Your task to perform on an android device: delete location history Image 0: 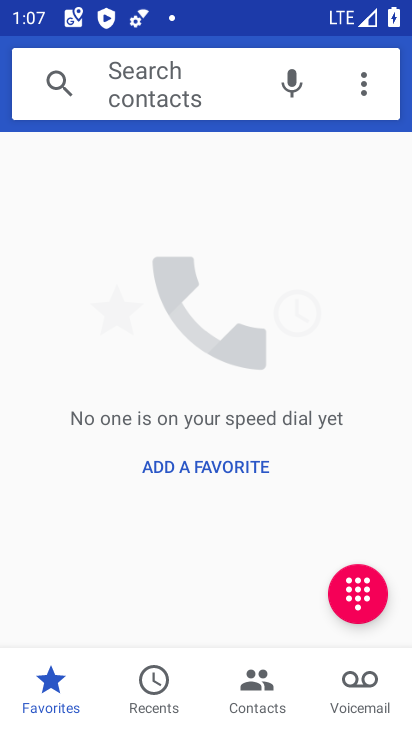
Step 0: press home button
Your task to perform on an android device: delete location history Image 1: 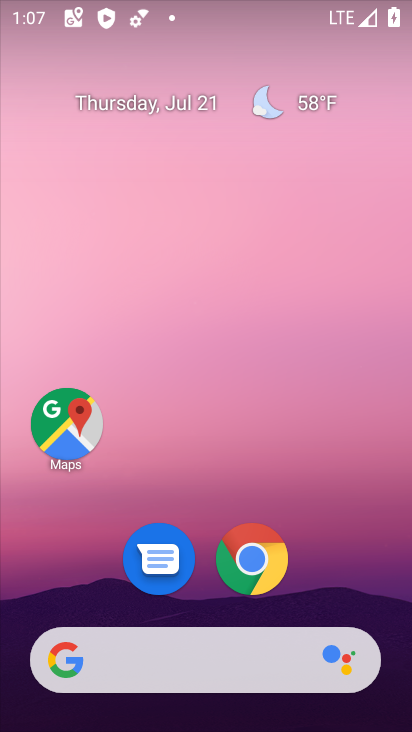
Step 1: drag from (323, 552) to (337, 200)
Your task to perform on an android device: delete location history Image 2: 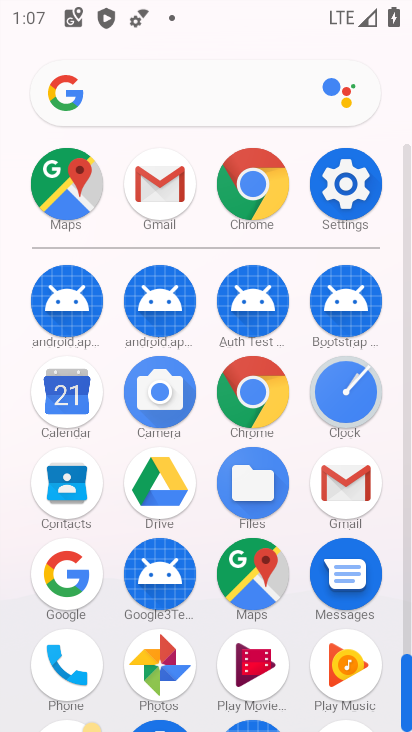
Step 2: click (268, 572)
Your task to perform on an android device: delete location history Image 3: 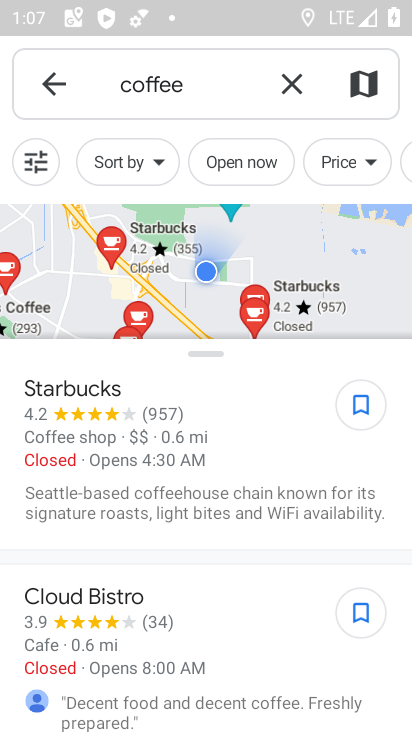
Step 3: press back button
Your task to perform on an android device: delete location history Image 4: 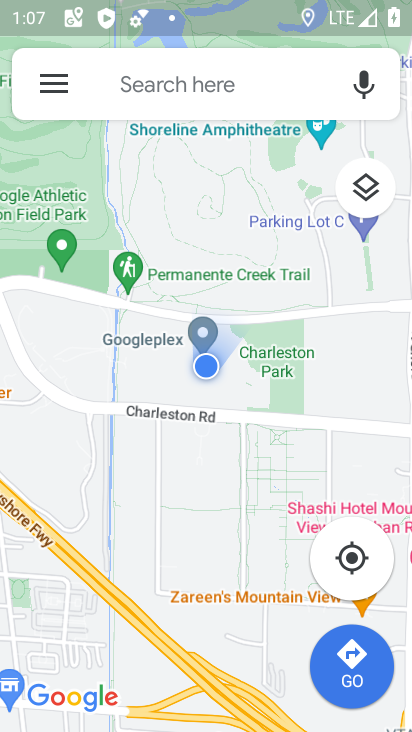
Step 4: click (58, 78)
Your task to perform on an android device: delete location history Image 5: 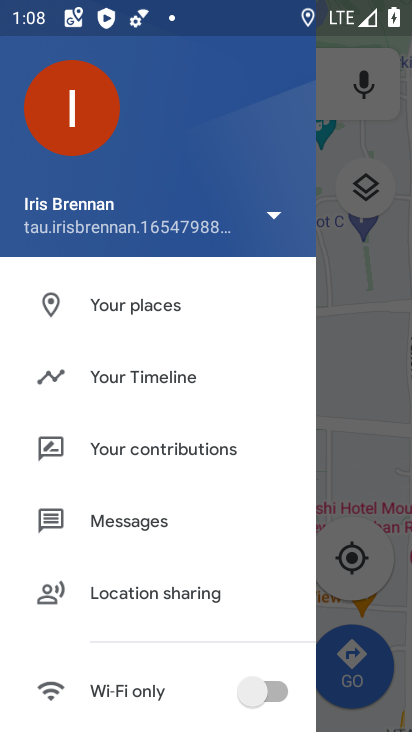
Step 5: click (176, 370)
Your task to perform on an android device: delete location history Image 6: 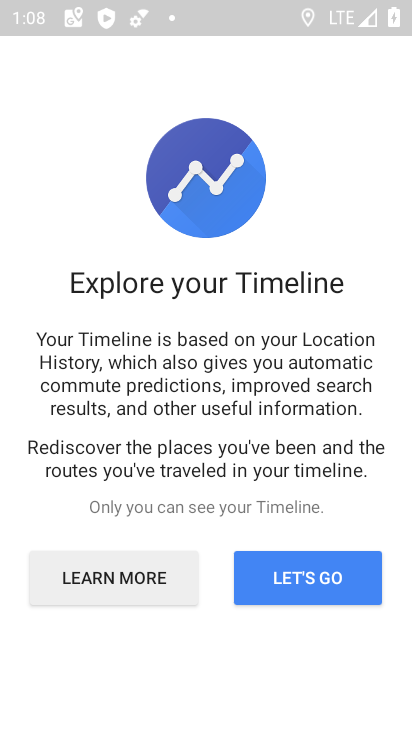
Step 6: drag from (212, 606) to (218, 463)
Your task to perform on an android device: delete location history Image 7: 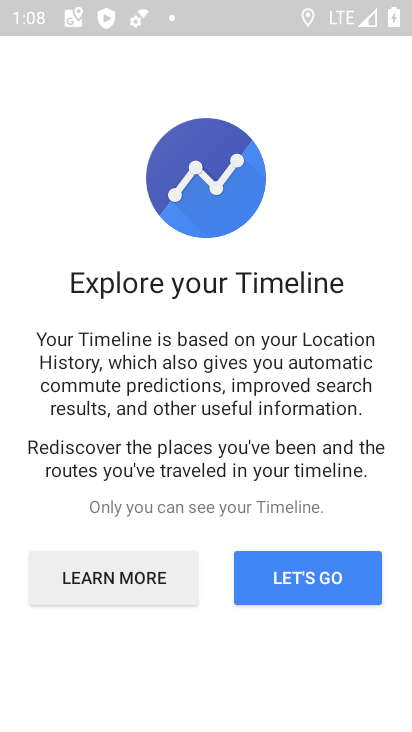
Step 7: click (262, 575)
Your task to perform on an android device: delete location history Image 8: 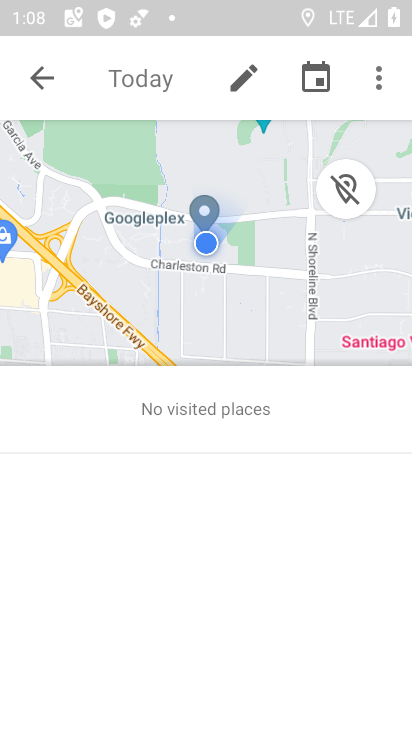
Step 8: click (378, 91)
Your task to perform on an android device: delete location history Image 9: 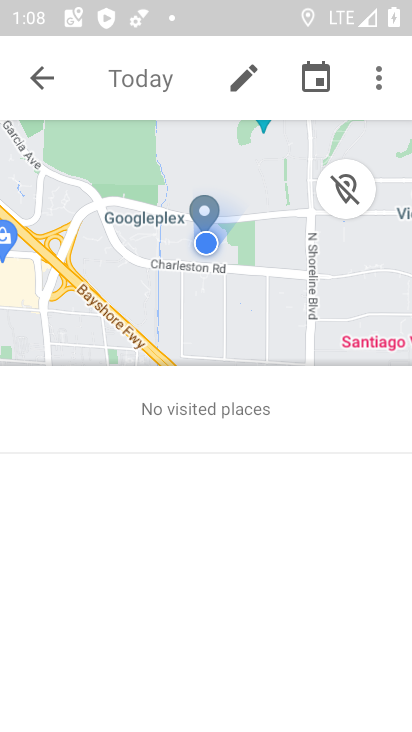
Step 9: click (378, 91)
Your task to perform on an android device: delete location history Image 10: 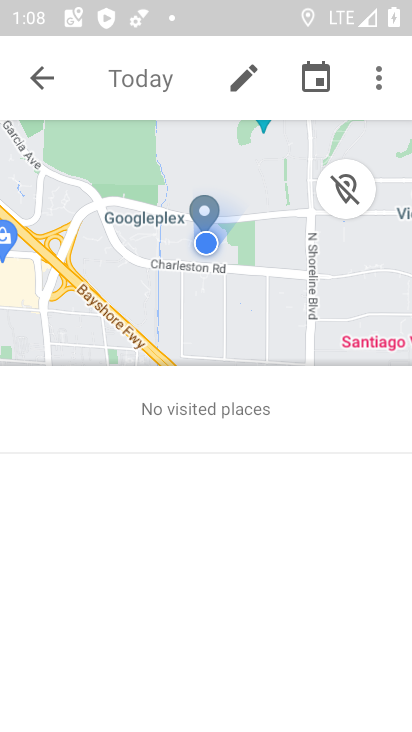
Step 10: click (378, 72)
Your task to perform on an android device: delete location history Image 11: 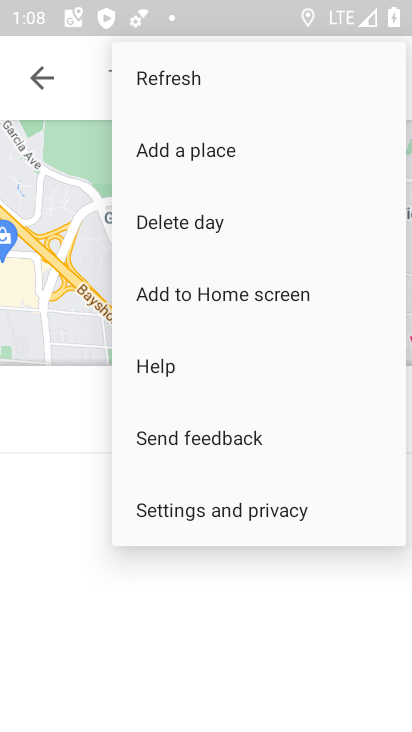
Step 11: click (275, 509)
Your task to perform on an android device: delete location history Image 12: 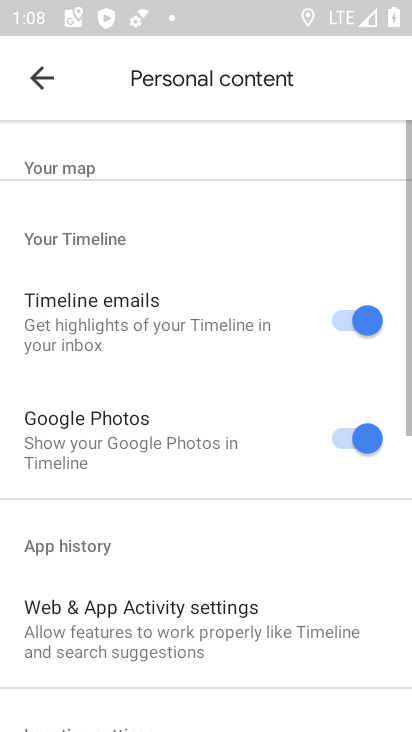
Step 12: drag from (273, 557) to (282, 477)
Your task to perform on an android device: delete location history Image 13: 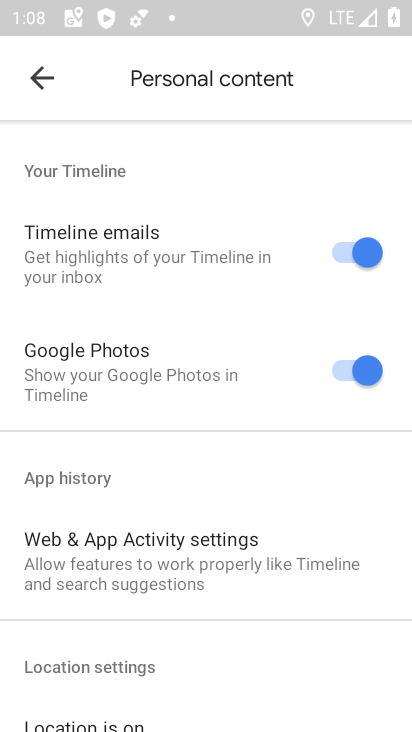
Step 13: drag from (286, 591) to (294, 495)
Your task to perform on an android device: delete location history Image 14: 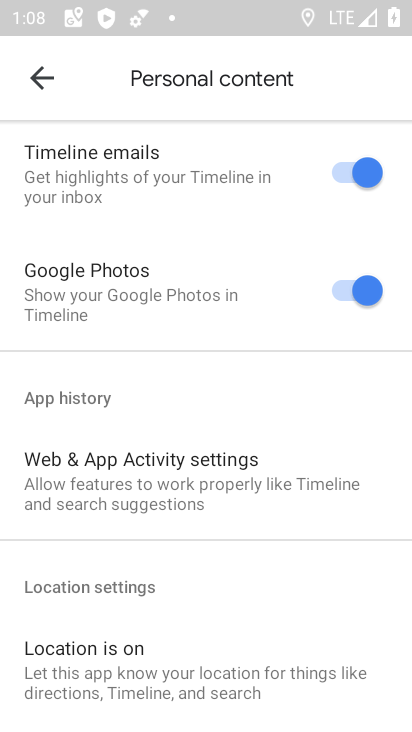
Step 14: drag from (270, 563) to (268, 453)
Your task to perform on an android device: delete location history Image 15: 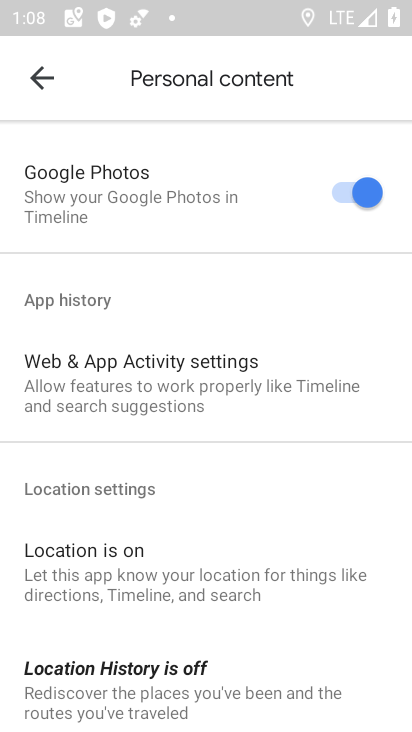
Step 15: drag from (252, 572) to (255, 515)
Your task to perform on an android device: delete location history Image 16: 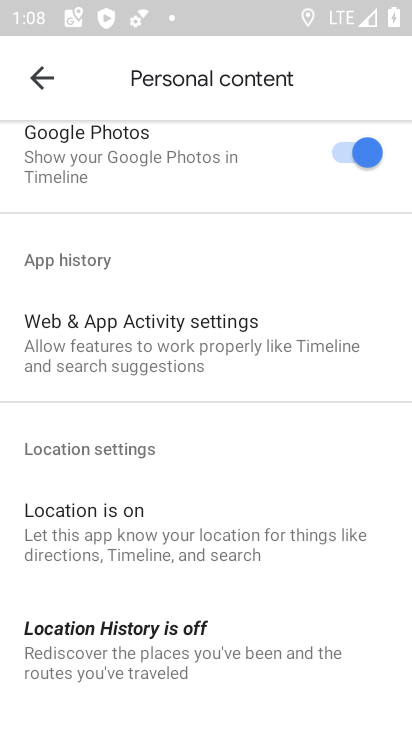
Step 16: drag from (251, 594) to (261, 481)
Your task to perform on an android device: delete location history Image 17: 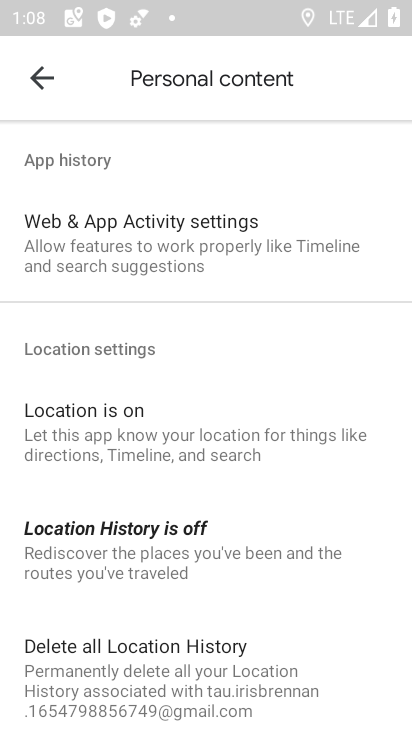
Step 17: drag from (261, 588) to (267, 523)
Your task to perform on an android device: delete location history Image 18: 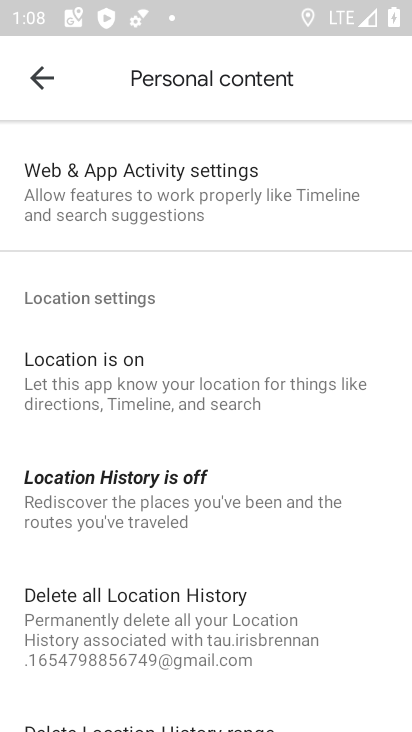
Step 18: click (252, 621)
Your task to perform on an android device: delete location history Image 19: 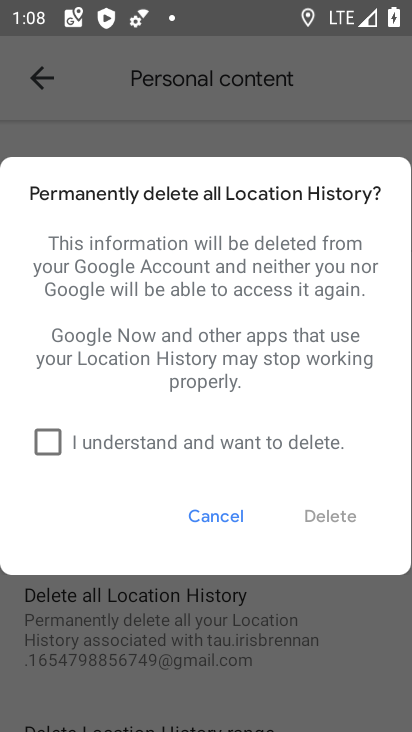
Step 19: click (44, 452)
Your task to perform on an android device: delete location history Image 20: 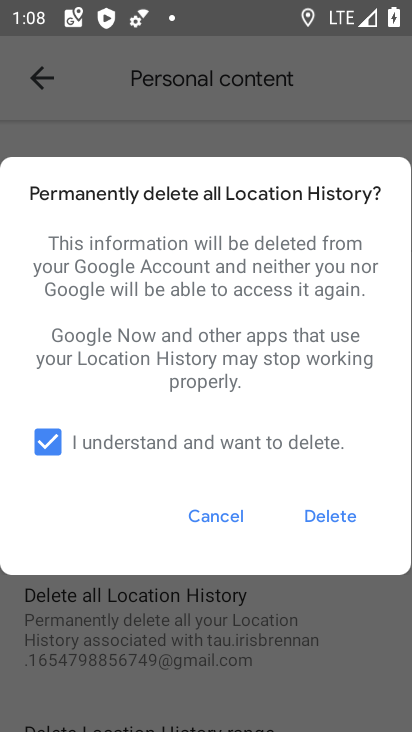
Step 20: click (326, 513)
Your task to perform on an android device: delete location history Image 21: 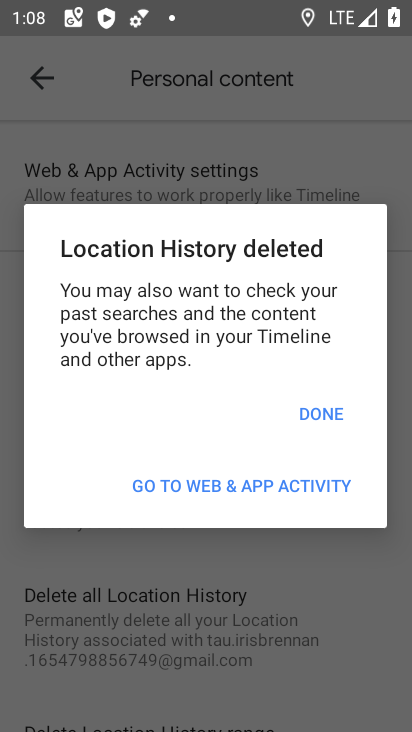
Step 21: click (310, 413)
Your task to perform on an android device: delete location history Image 22: 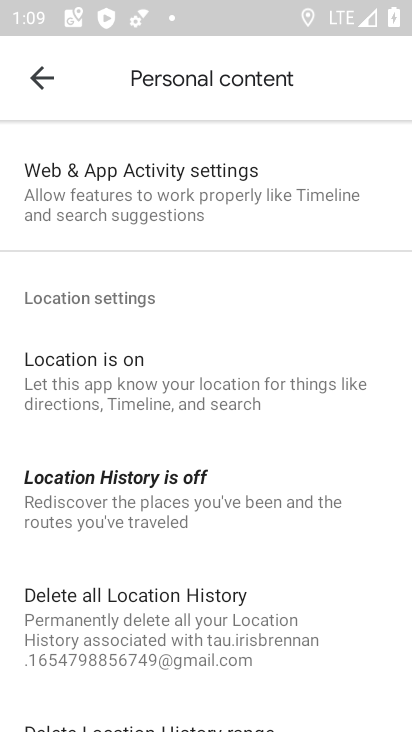
Step 22: task complete